Your task to perform on an android device: Show me popular videos on Youtube Image 0: 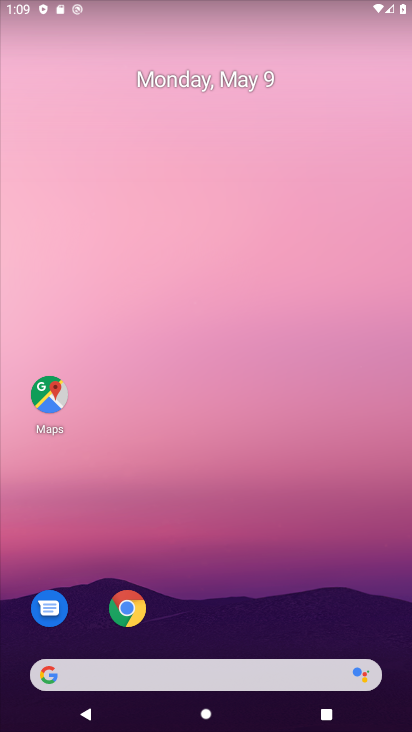
Step 0: drag from (341, 602) to (285, 3)
Your task to perform on an android device: Show me popular videos on Youtube Image 1: 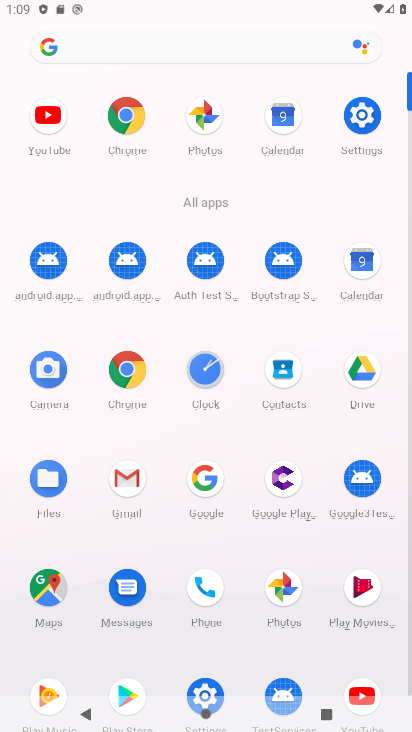
Step 1: click (29, 117)
Your task to perform on an android device: Show me popular videos on Youtube Image 2: 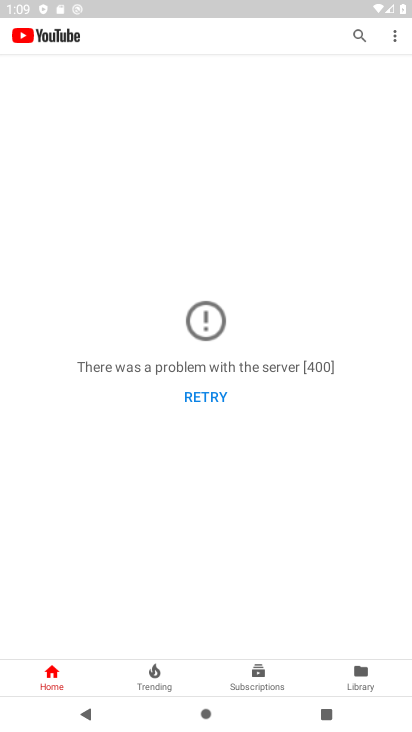
Step 2: task complete